Your task to perform on an android device: Go to network settings Image 0: 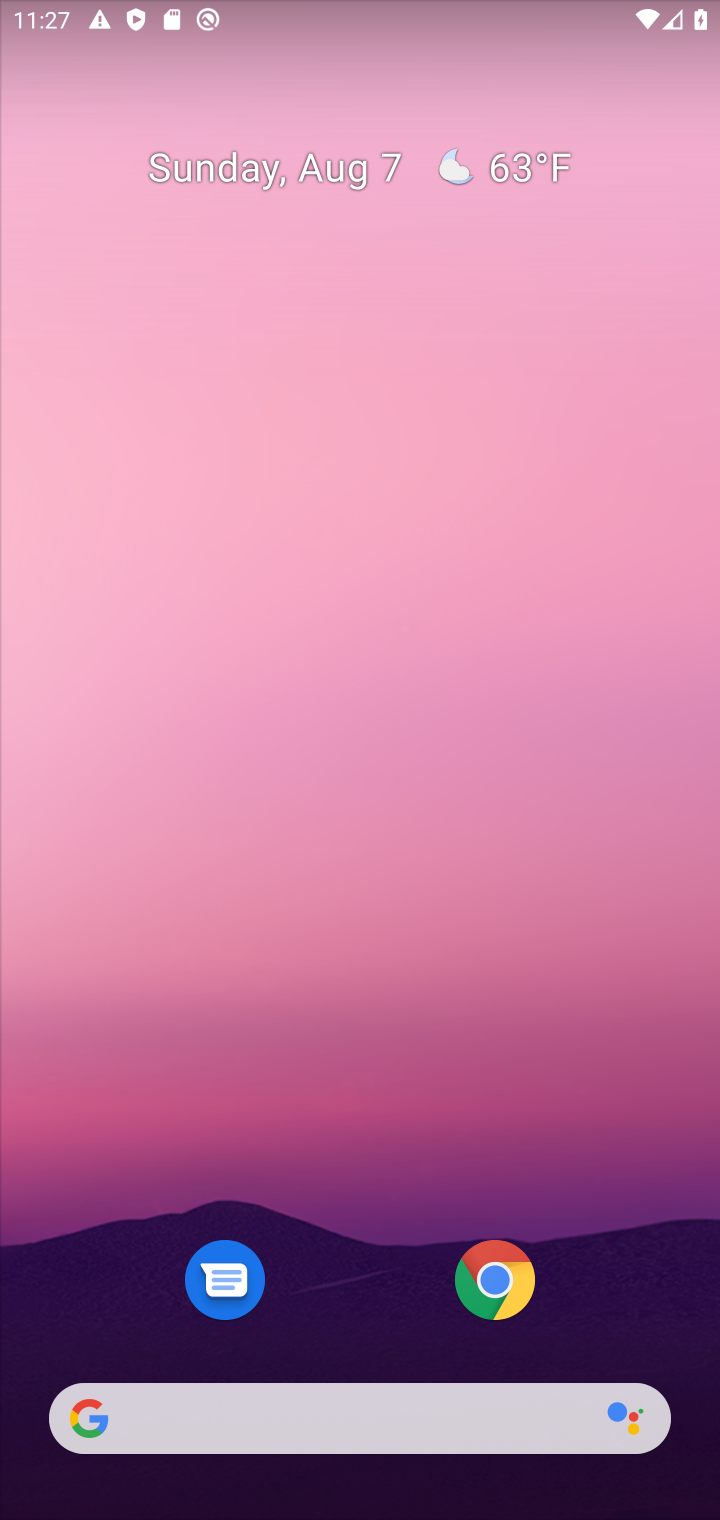
Step 0: drag from (349, 1224) to (362, 107)
Your task to perform on an android device: Go to network settings Image 1: 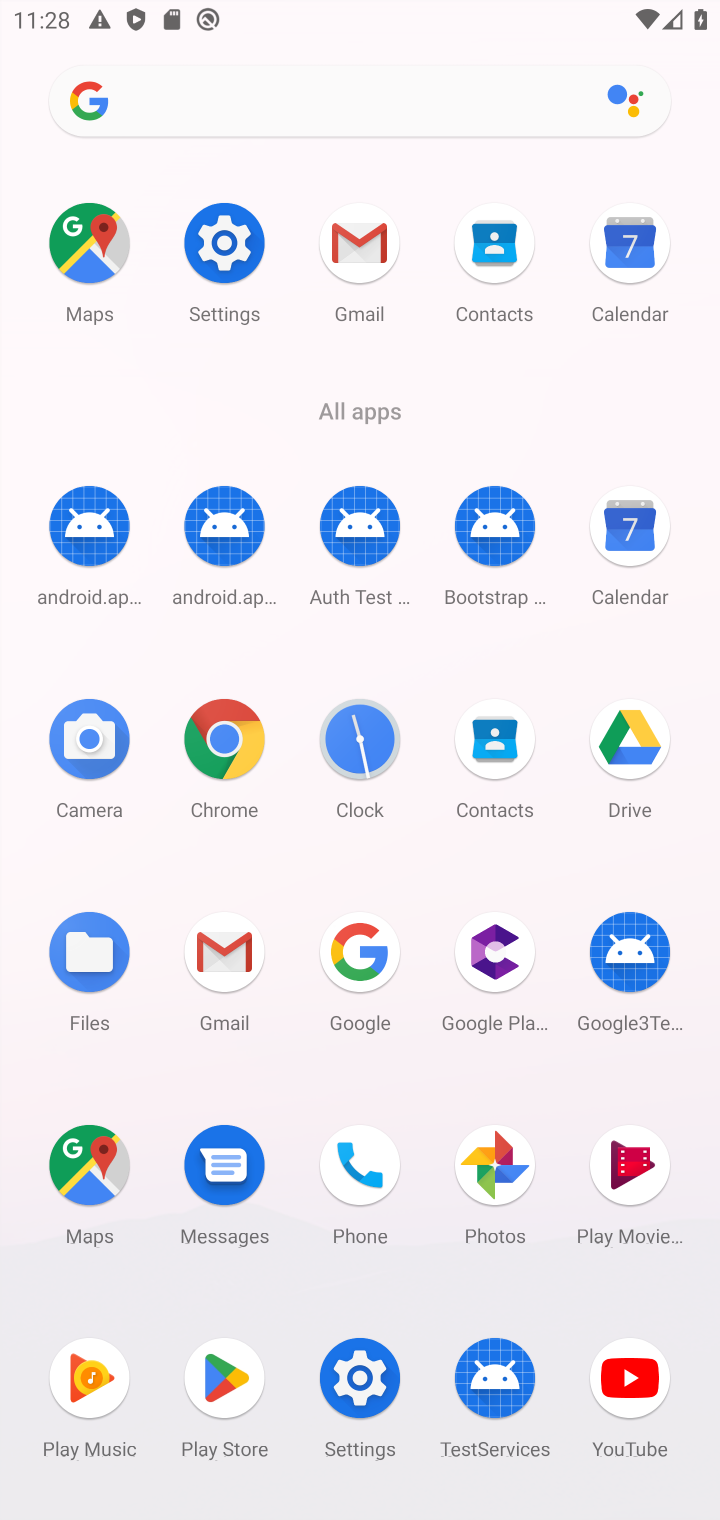
Step 1: click (231, 232)
Your task to perform on an android device: Go to network settings Image 2: 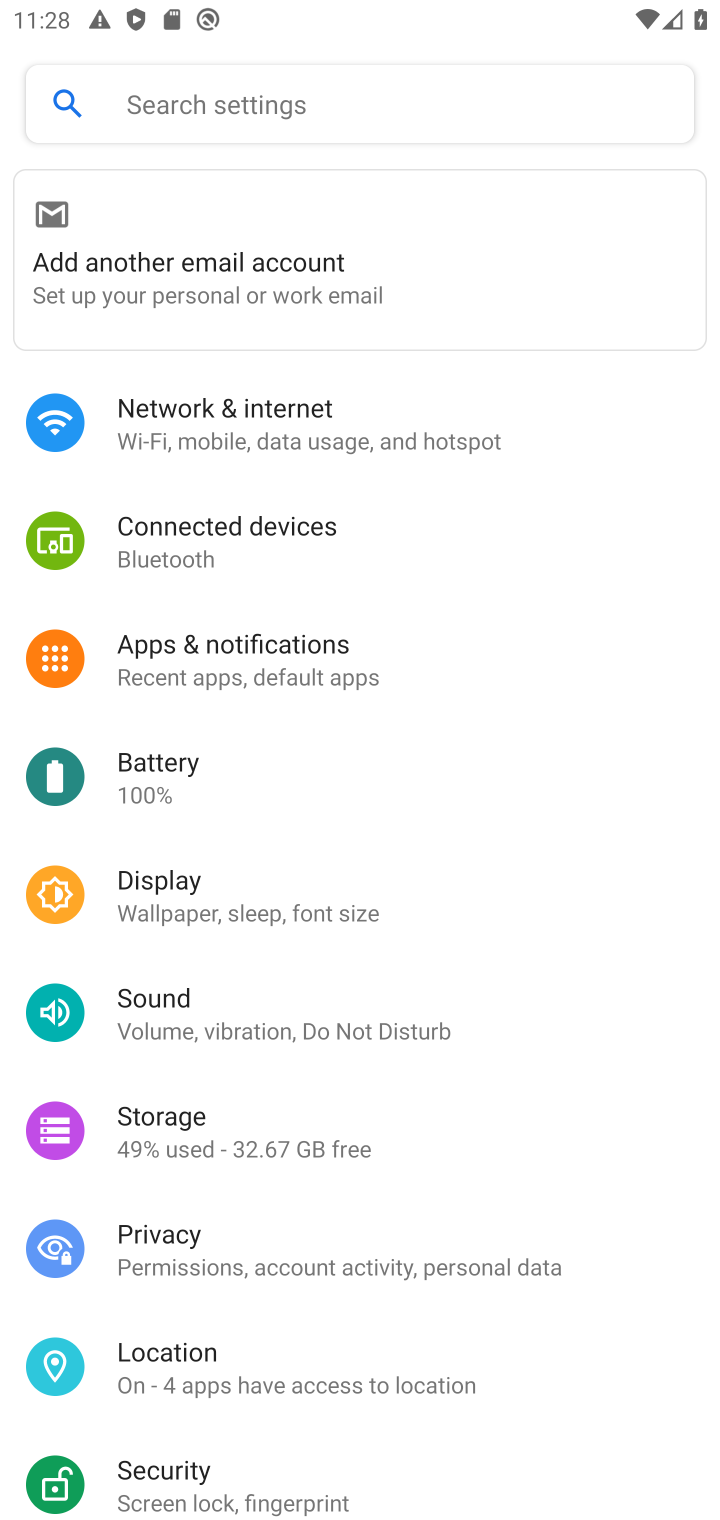
Step 2: click (158, 413)
Your task to perform on an android device: Go to network settings Image 3: 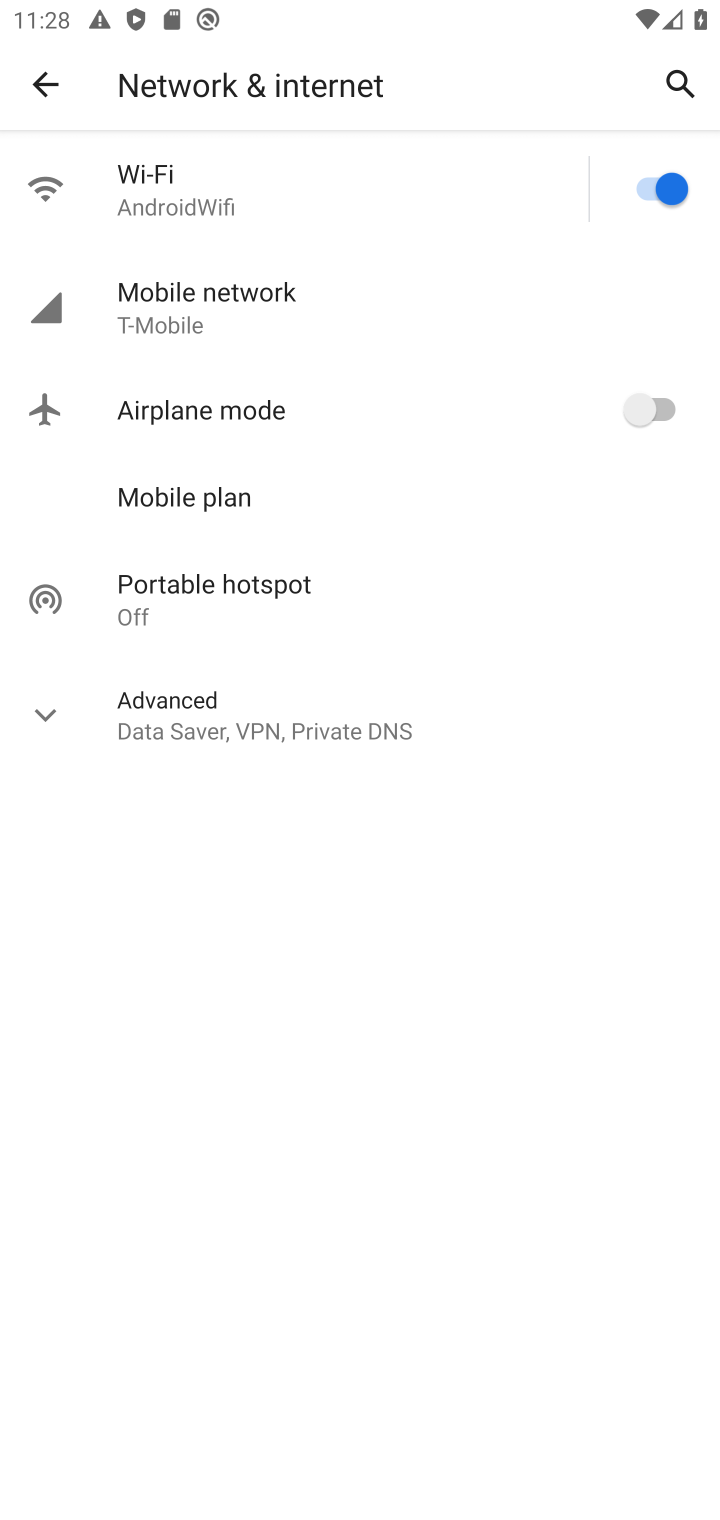
Step 3: click (196, 284)
Your task to perform on an android device: Go to network settings Image 4: 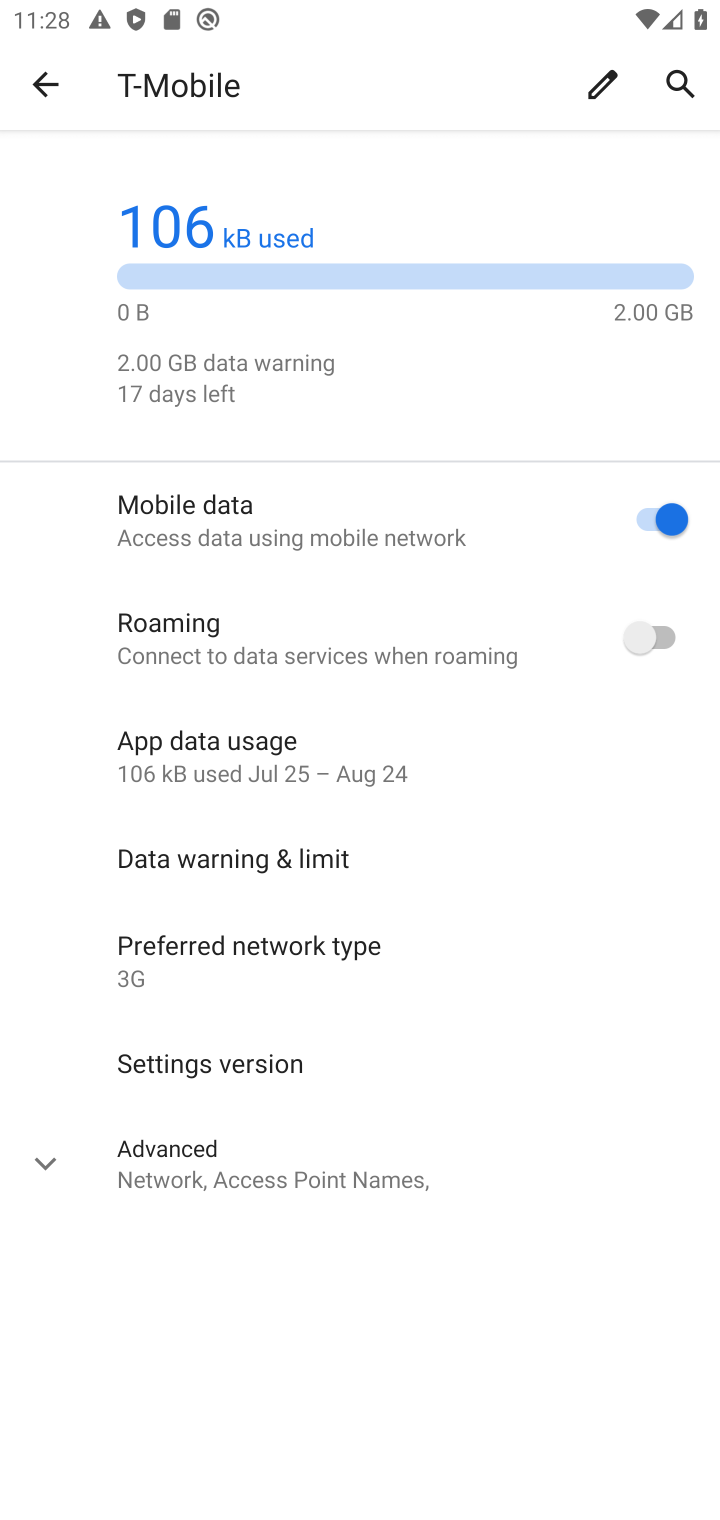
Step 4: task complete